Your task to perform on an android device: uninstall "Google Home" Image 0: 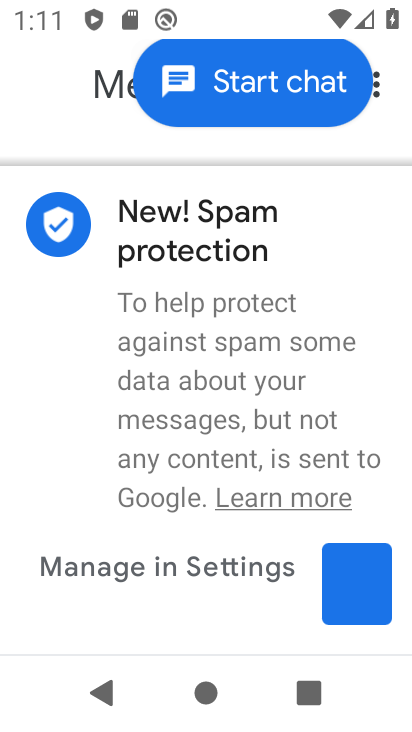
Step 0: press home button
Your task to perform on an android device: uninstall "Google Home" Image 1: 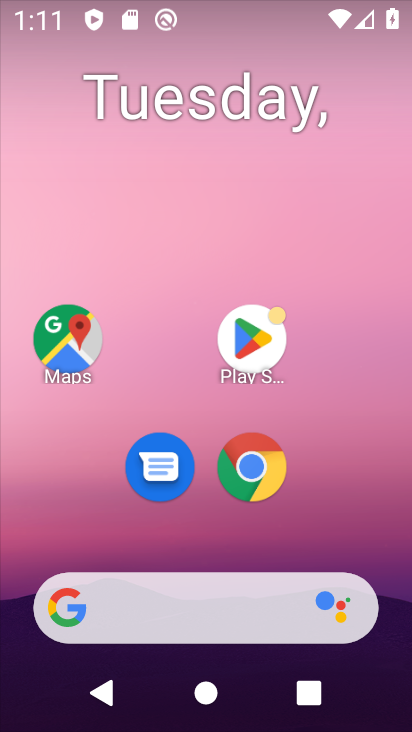
Step 1: click (257, 360)
Your task to perform on an android device: uninstall "Google Home" Image 2: 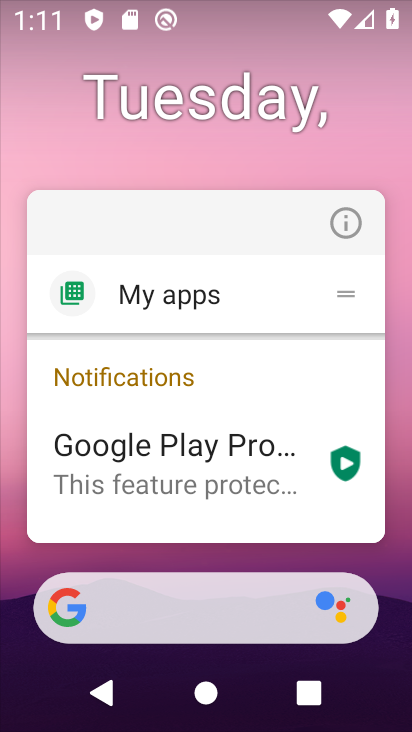
Step 2: click (382, 160)
Your task to perform on an android device: uninstall "Google Home" Image 3: 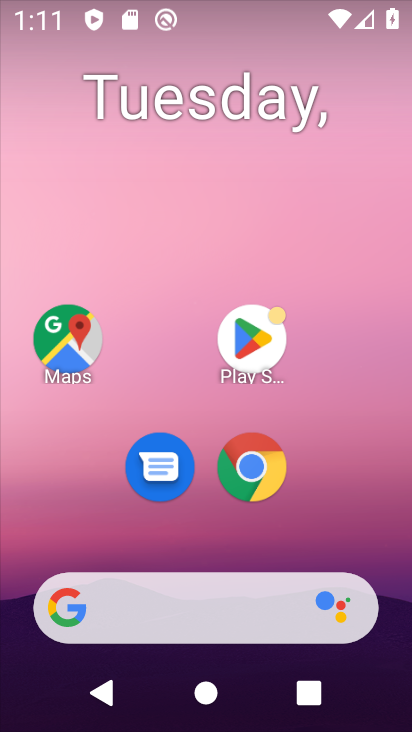
Step 3: click (248, 331)
Your task to perform on an android device: uninstall "Google Home" Image 4: 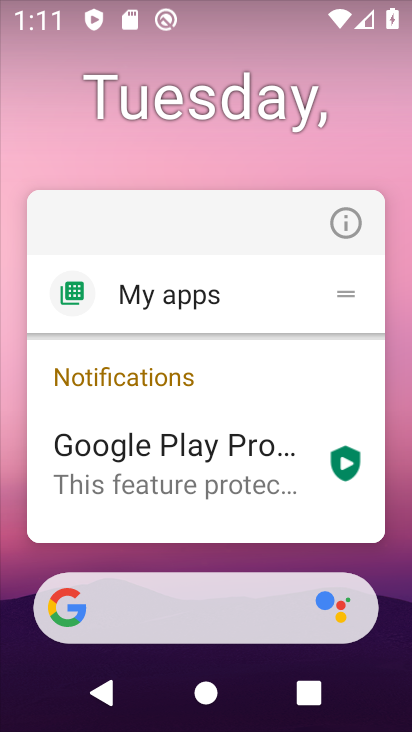
Step 4: click (373, 147)
Your task to perform on an android device: uninstall "Google Home" Image 5: 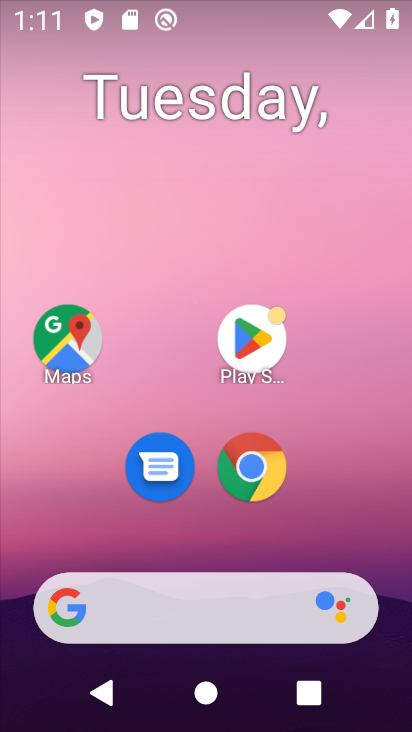
Step 5: click (259, 339)
Your task to perform on an android device: uninstall "Google Home" Image 6: 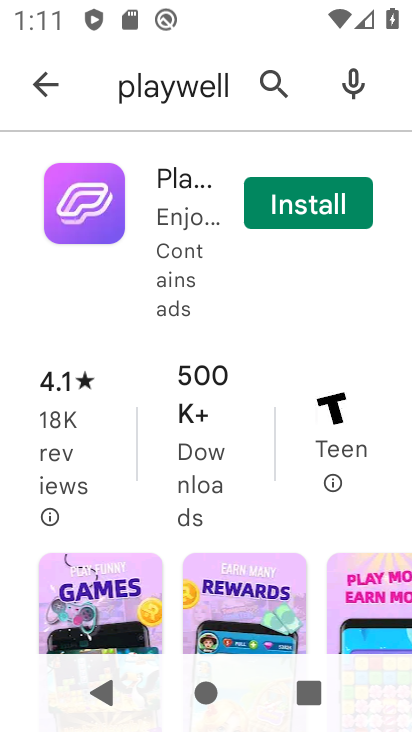
Step 6: click (267, 76)
Your task to perform on an android device: uninstall "Google Home" Image 7: 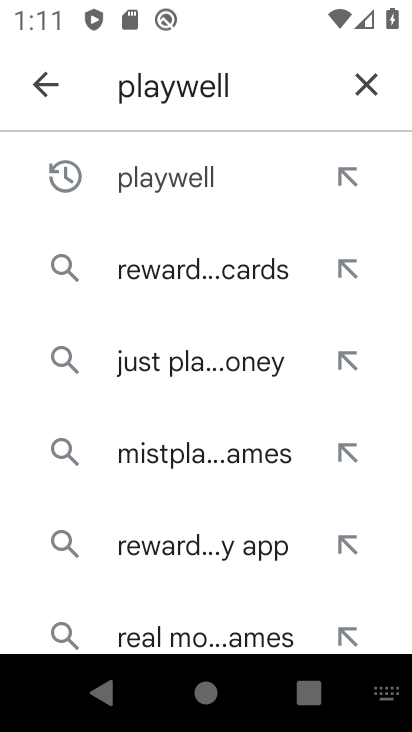
Step 7: click (358, 72)
Your task to perform on an android device: uninstall "Google Home" Image 8: 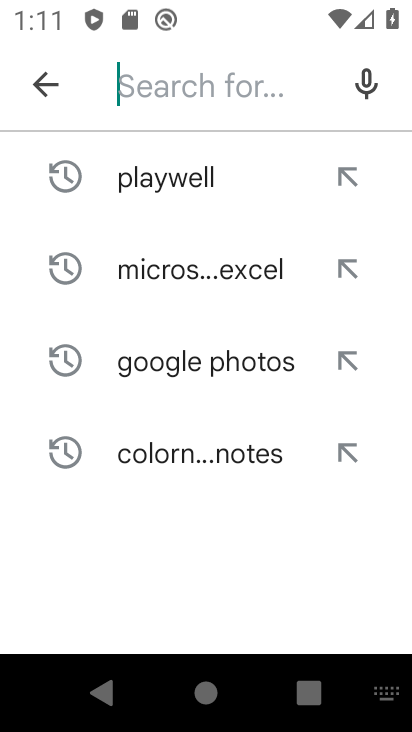
Step 8: type "Google Home"
Your task to perform on an android device: uninstall "Google Home" Image 9: 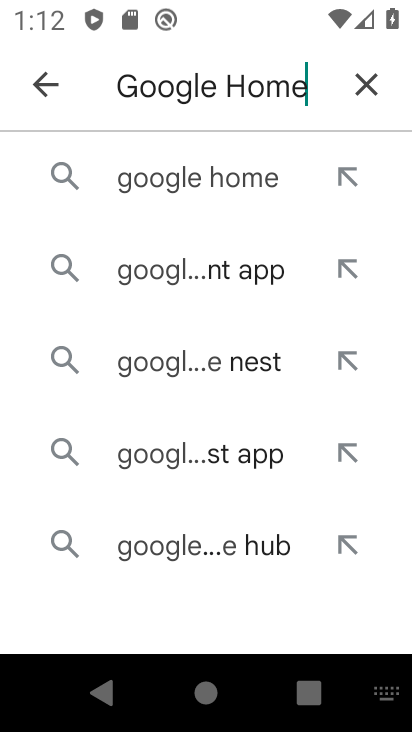
Step 9: click (258, 173)
Your task to perform on an android device: uninstall "Google Home" Image 10: 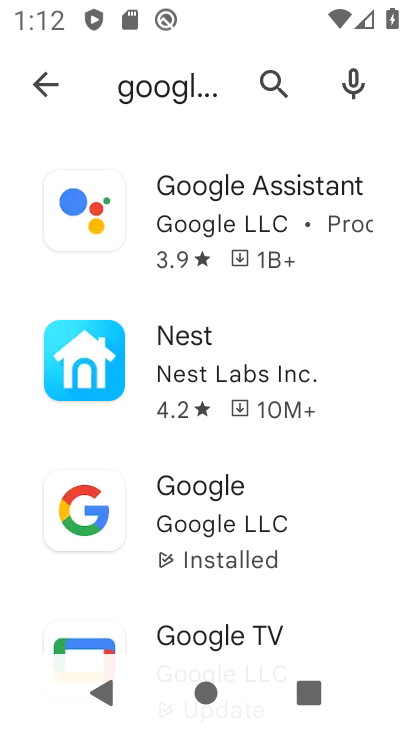
Step 10: click (267, 80)
Your task to perform on an android device: uninstall "Google Home" Image 11: 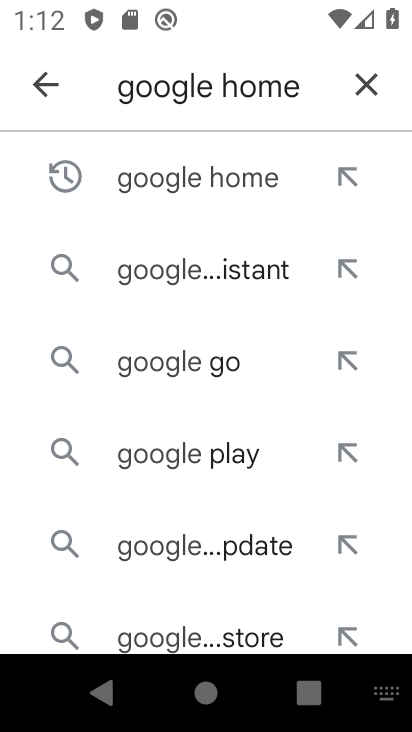
Step 11: click (187, 175)
Your task to perform on an android device: uninstall "Google Home" Image 12: 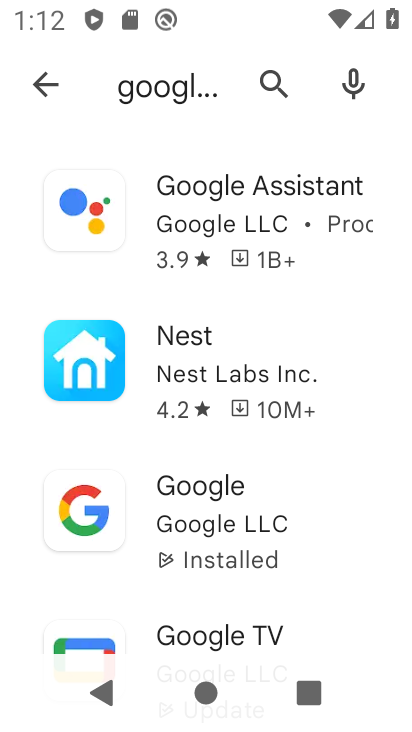
Step 12: task complete